Your task to perform on an android device: add a contact Image 0: 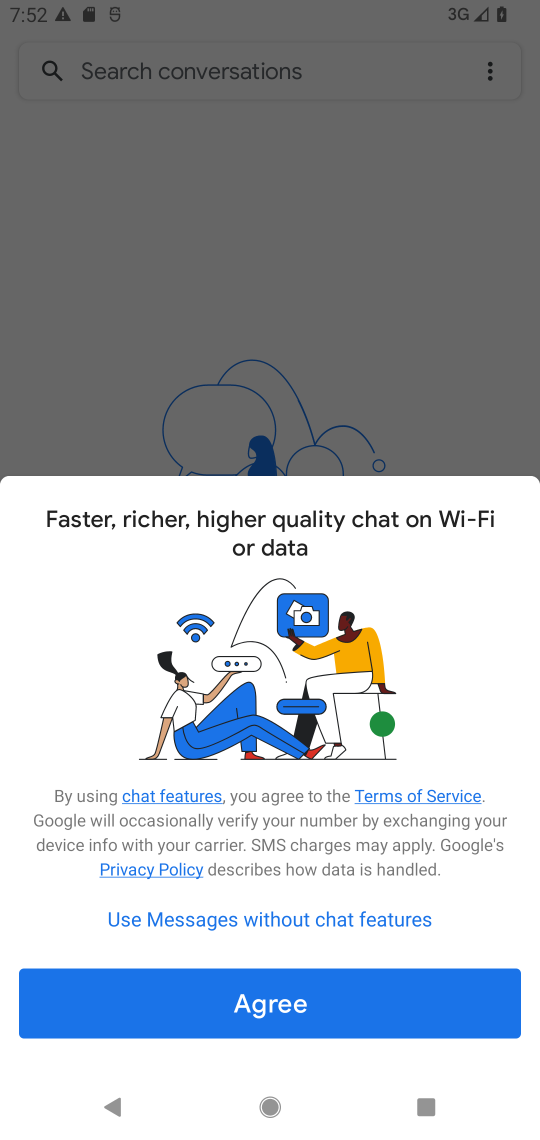
Step 0: press home button
Your task to perform on an android device: add a contact Image 1: 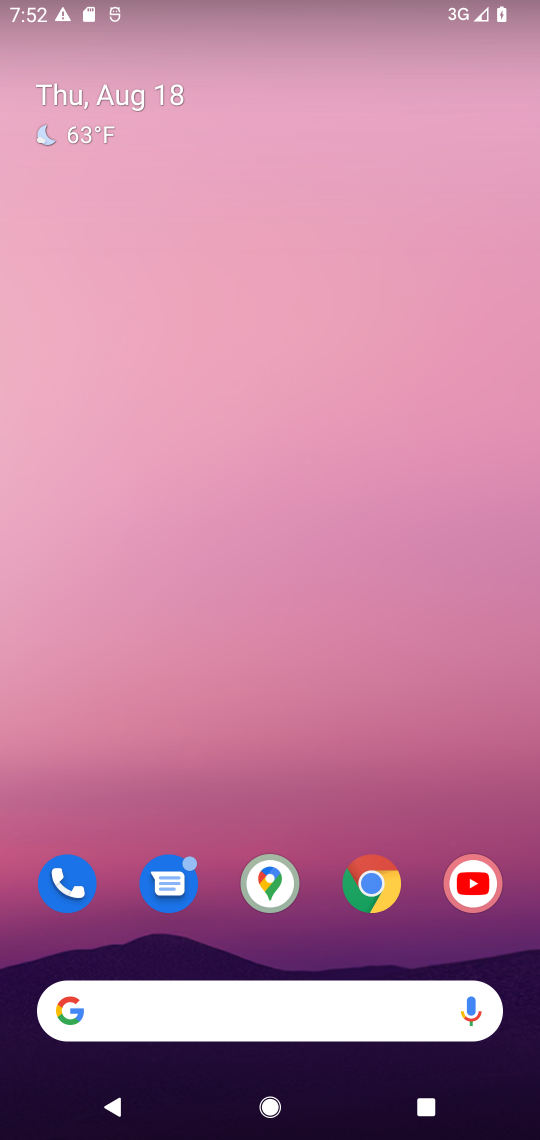
Step 1: click (55, 866)
Your task to perform on an android device: add a contact Image 2: 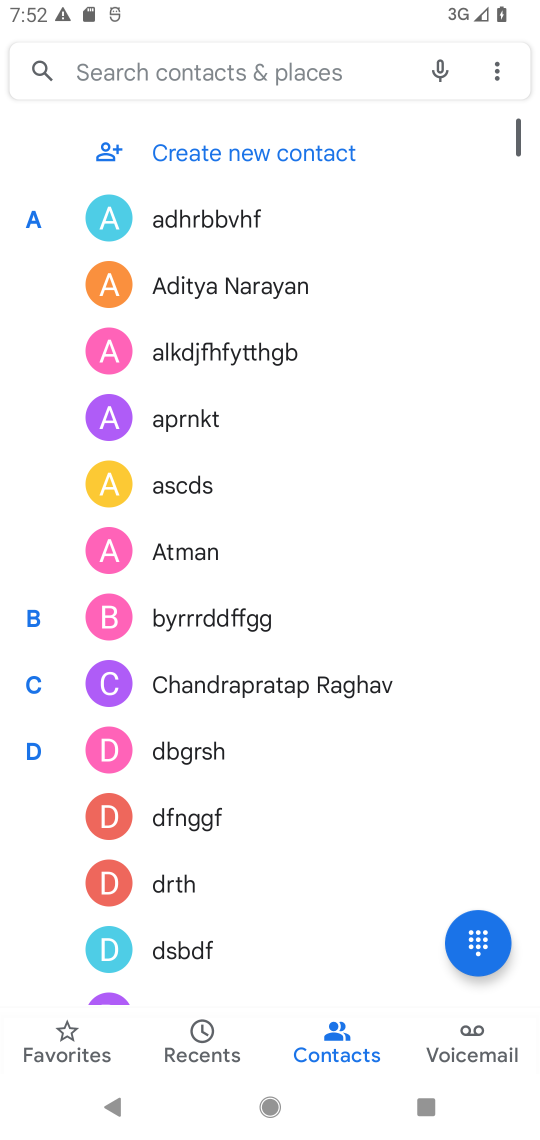
Step 2: click (220, 148)
Your task to perform on an android device: add a contact Image 3: 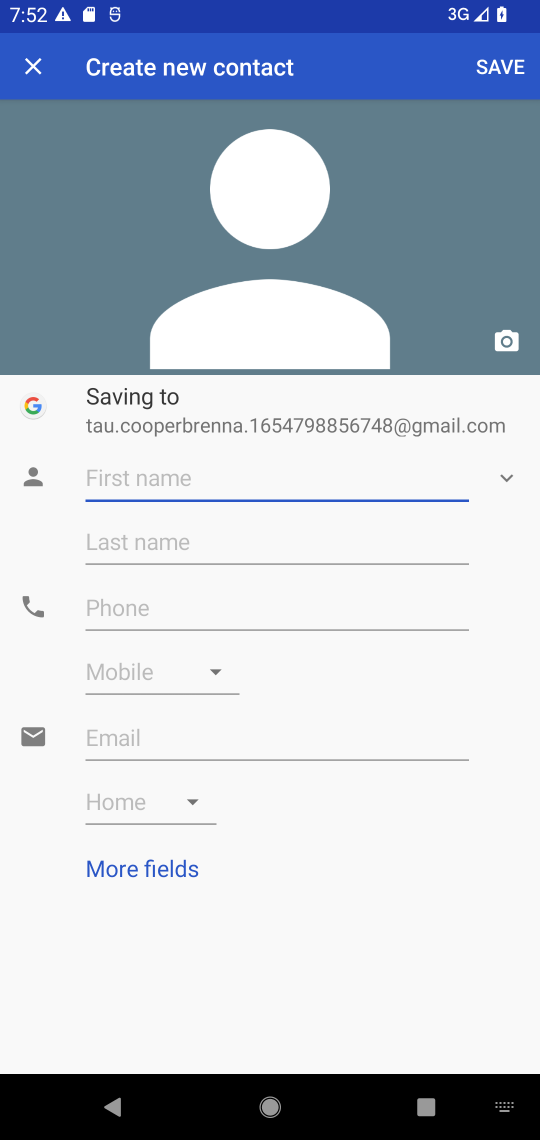
Step 3: type "hrddhjg"
Your task to perform on an android device: add a contact Image 4: 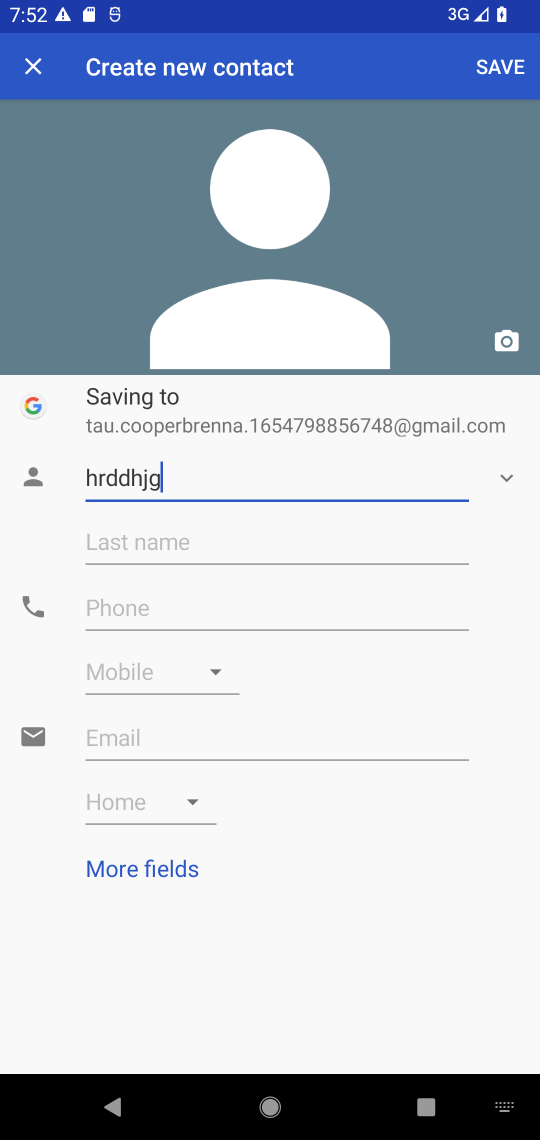
Step 4: click (503, 74)
Your task to perform on an android device: add a contact Image 5: 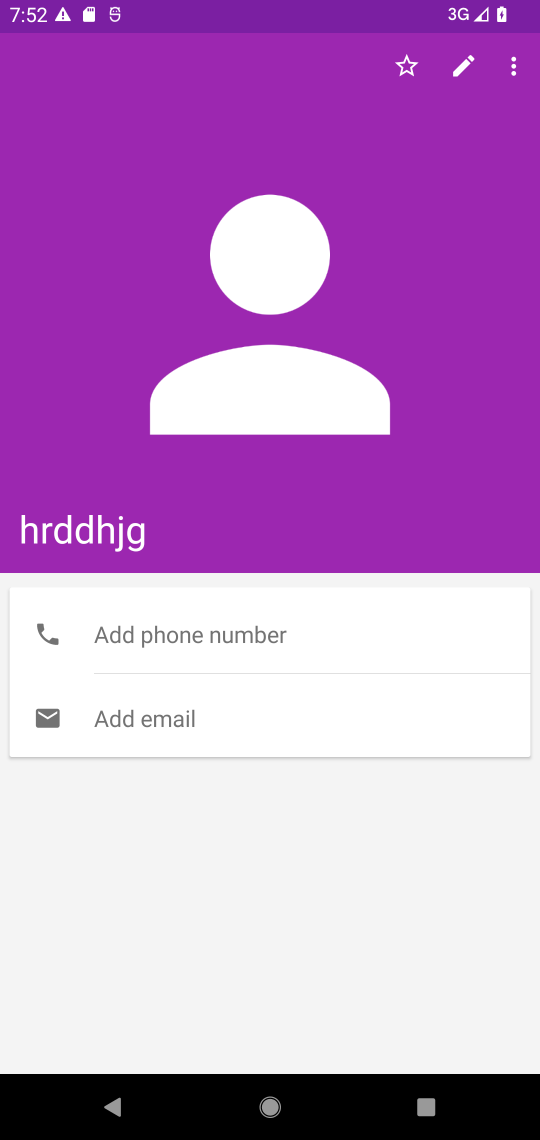
Step 5: task complete